Your task to perform on an android device: move a message to another label in the gmail app Image 0: 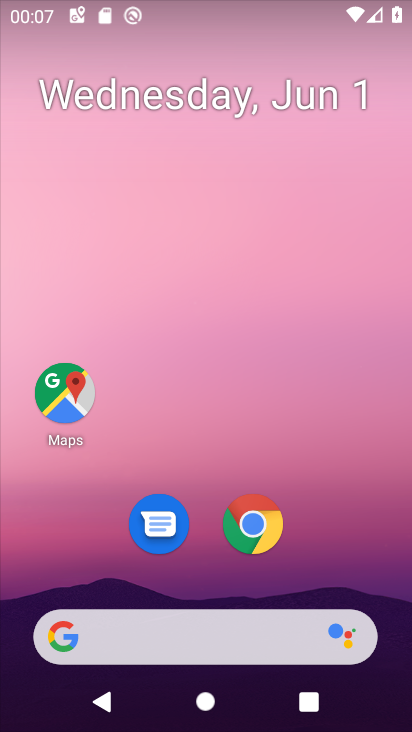
Step 0: drag from (321, 509) to (261, 67)
Your task to perform on an android device: move a message to another label in the gmail app Image 1: 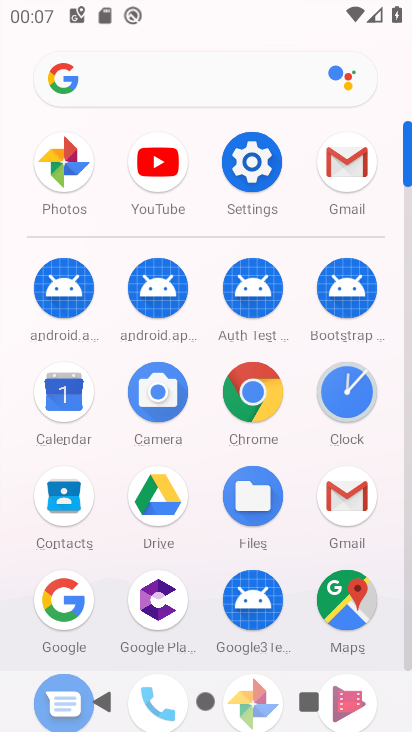
Step 1: click (345, 160)
Your task to perform on an android device: move a message to another label in the gmail app Image 2: 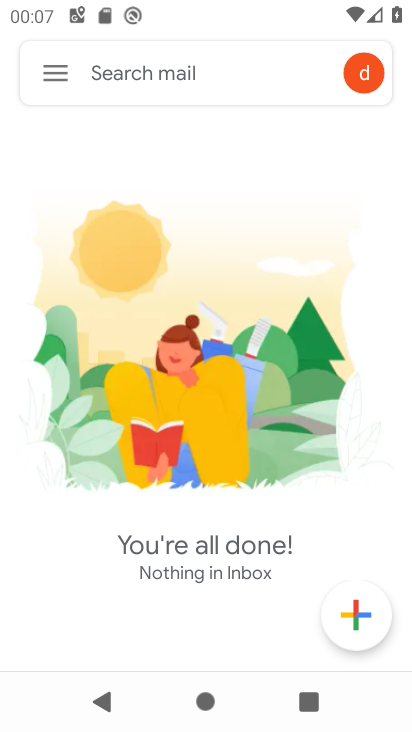
Step 2: click (63, 66)
Your task to perform on an android device: move a message to another label in the gmail app Image 3: 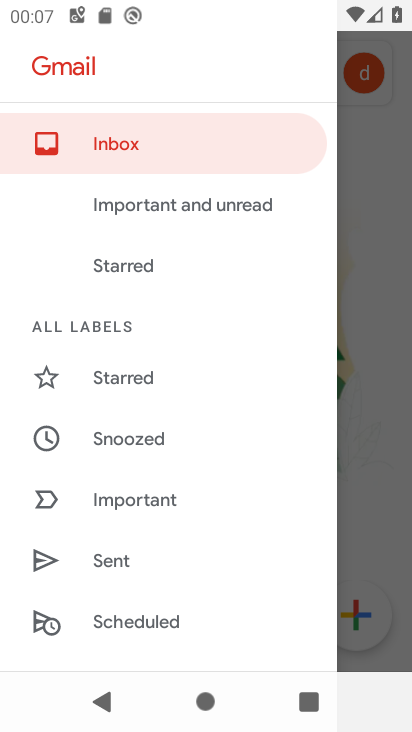
Step 3: drag from (214, 517) to (183, 156)
Your task to perform on an android device: move a message to another label in the gmail app Image 4: 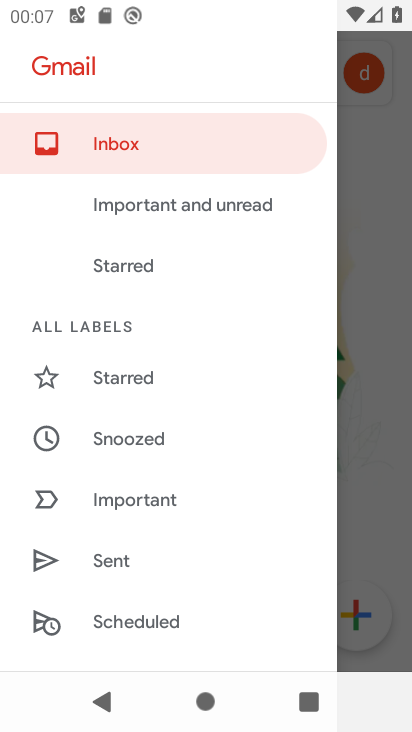
Step 4: drag from (172, 567) to (206, 142)
Your task to perform on an android device: move a message to another label in the gmail app Image 5: 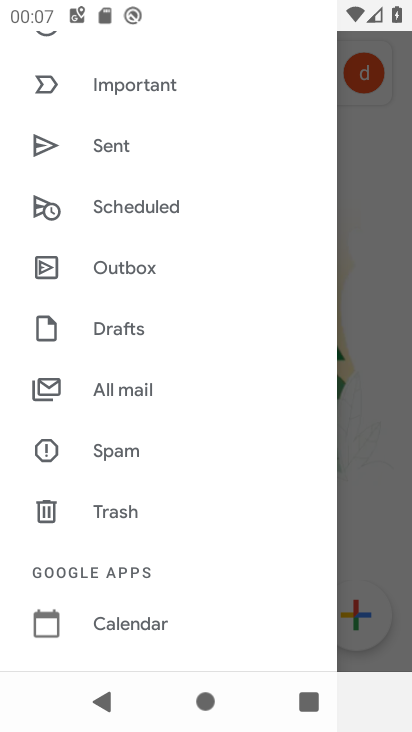
Step 5: click (154, 390)
Your task to perform on an android device: move a message to another label in the gmail app Image 6: 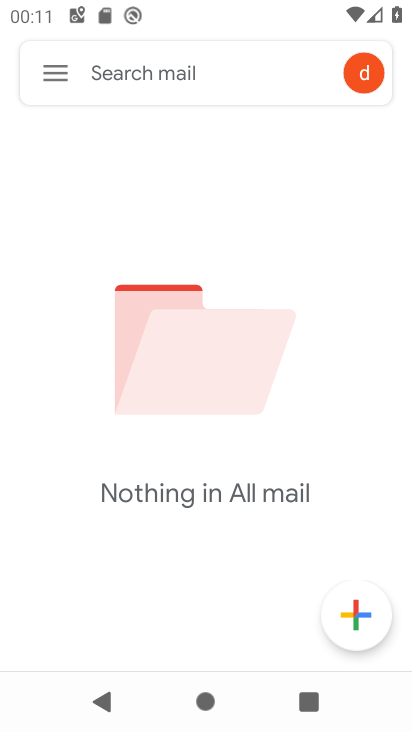
Step 6: task complete